Your task to perform on an android device: When is my next meeting? Image 0: 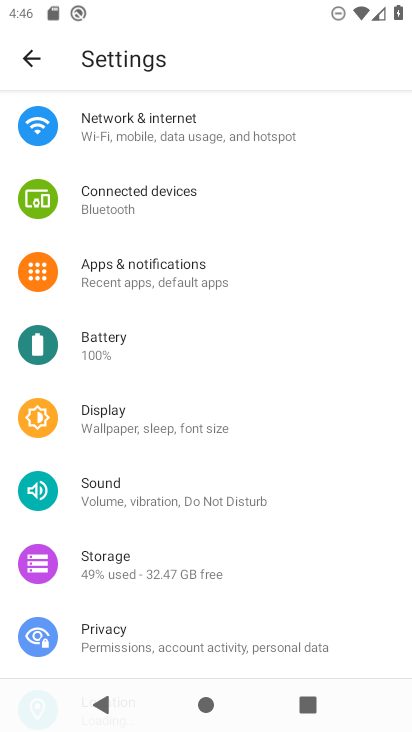
Step 0: press home button
Your task to perform on an android device: When is my next meeting? Image 1: 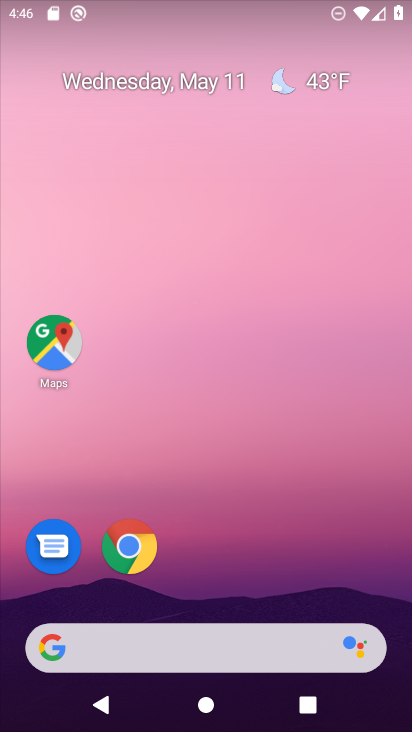
Step 1: drag from (196, 609) to (187, 335)
Your task to perform on an android device: When is my next meeting? Image 2: 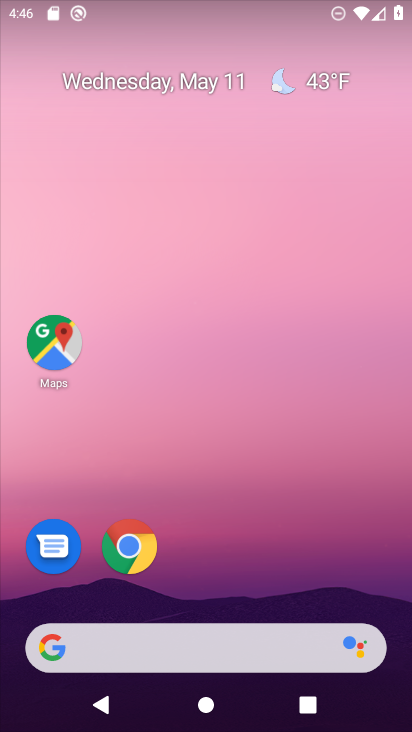
Step 2: drag from (231, 564) to (226, 238)
Your task to perform on an android device: When is my next meeting? Image 3: 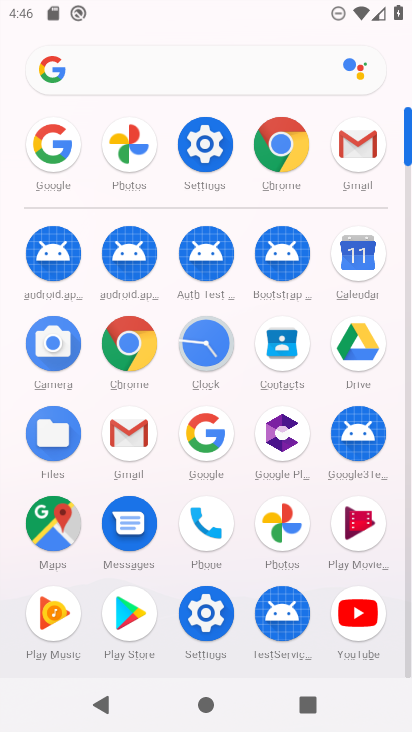
Step 3: click (356, 273)
Your task to perform on an android device: When is my next meeting? Image 4: 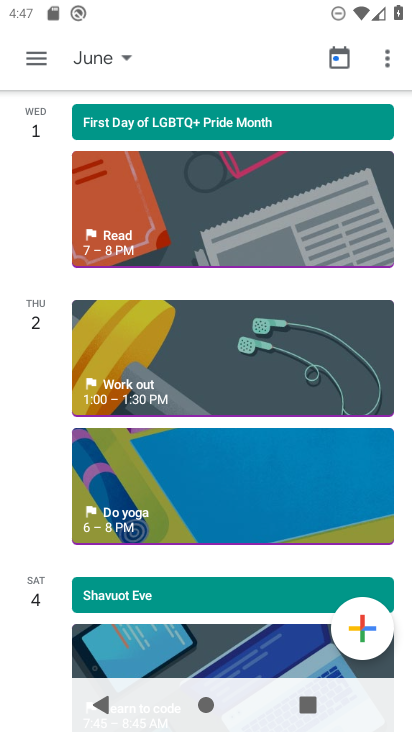
Step 4: click (100, 59)
Your task to perform on an android device: When is my next meeting? Image 5: 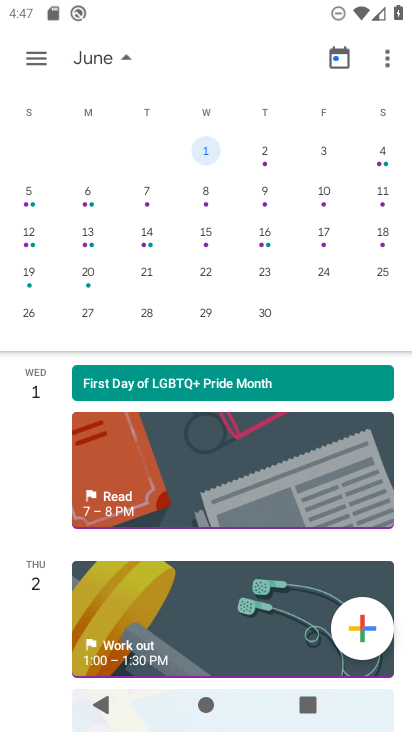
Step 5: drag from (41, 190) to (278, 236)
Your task to perform on an android device: When is my next meeting? Image 6: 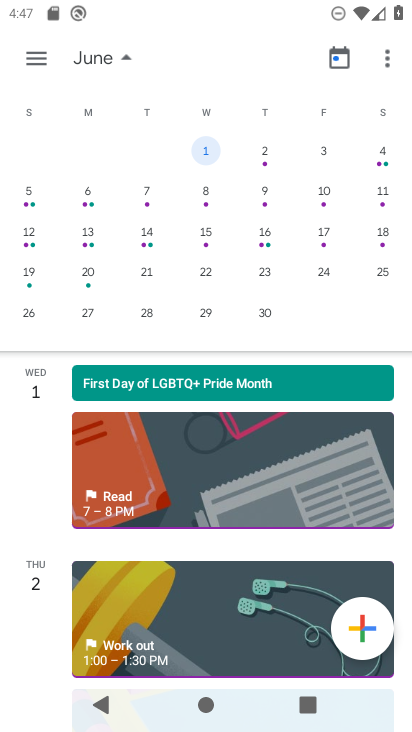
Step 6: drag from (69, 247) to (315, 272)
Your task to perform on an android device: When is my next meeting? Image 7: 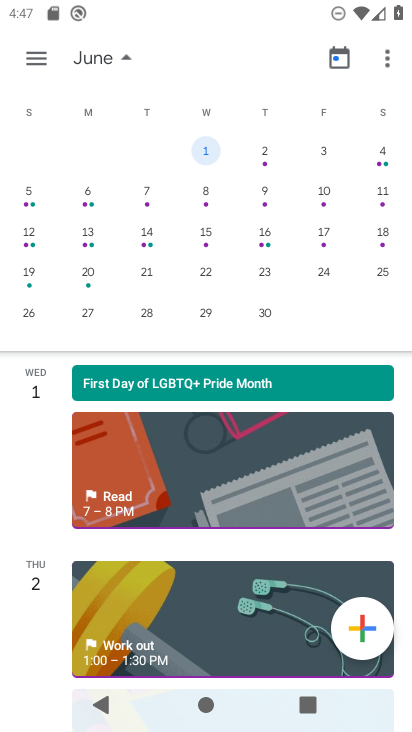
Step 7: drag from (66, 213) to (410, 180)
Your task to perform on an android device: When is my next meeting? Image 8: 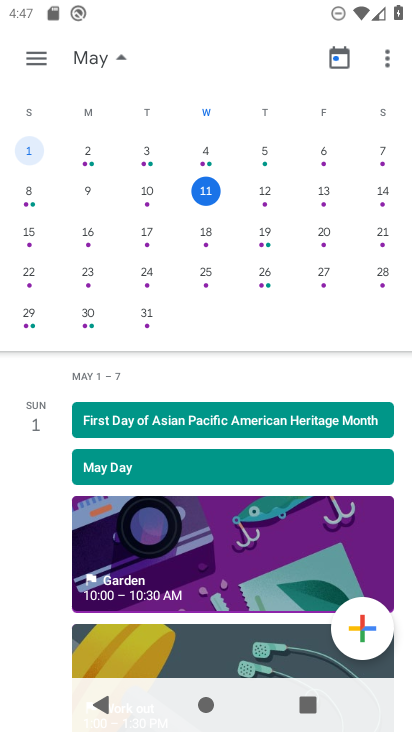
Step 8: click (208, 196)
Your task to perform on an android device: When is my next meeting? Image 9: 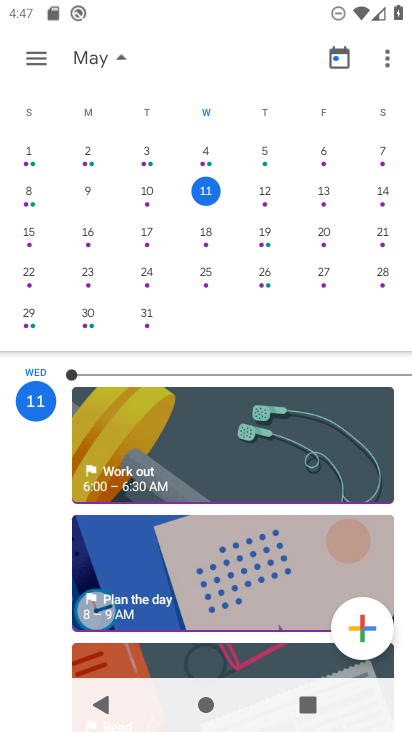
Step 9: drag from (180, 615) to (203, 465)
Your task to perform on an android device: When is my next meeting? Image 10: 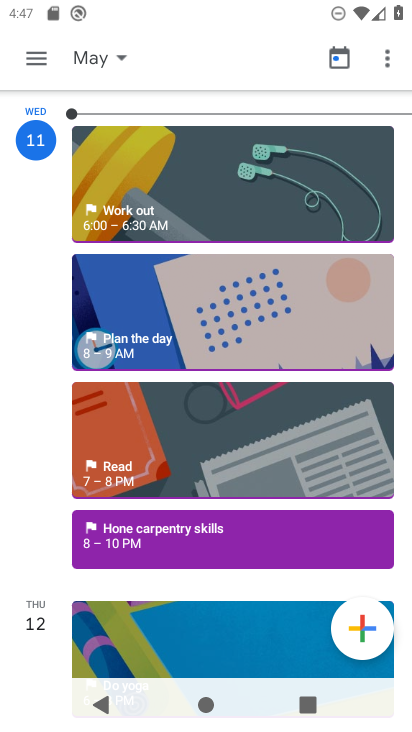
Step 10: click (187, 531)
Your task to perform on an android device: When is my next meeting? Image 11: 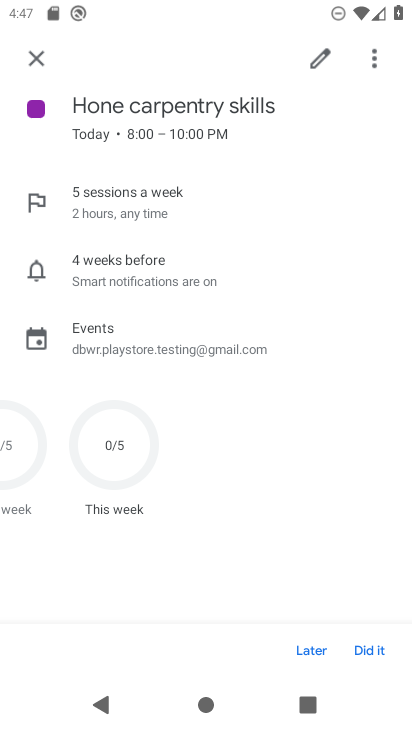
Step 11: task complete